Your task to perform on an android device: View the shopping cart on newegg. Image 0: 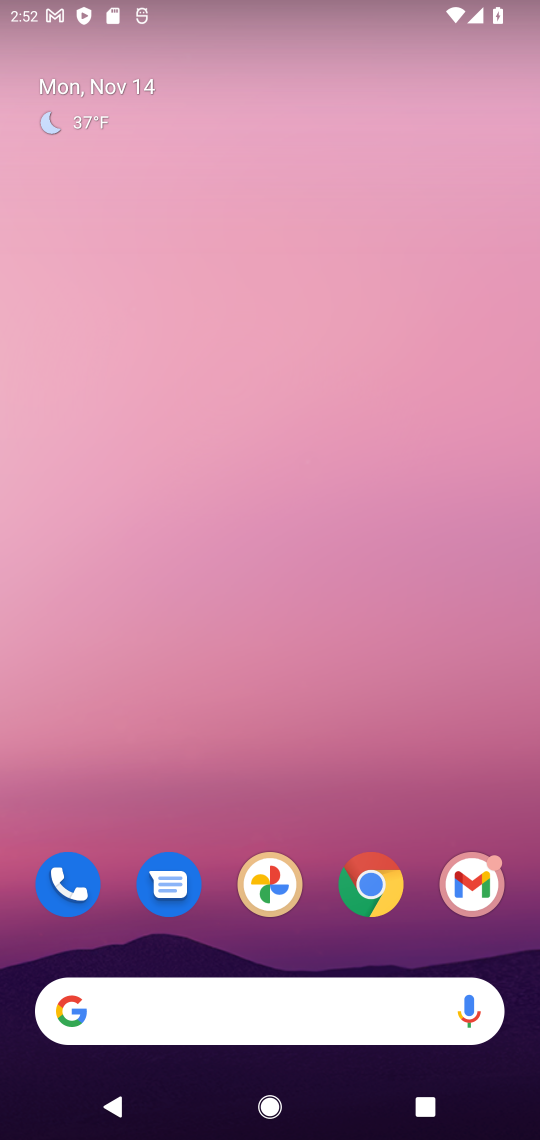
Step 0: click (380, 882)
Your task to perform on an android device: View the shopping cart on newegg. Image 1: 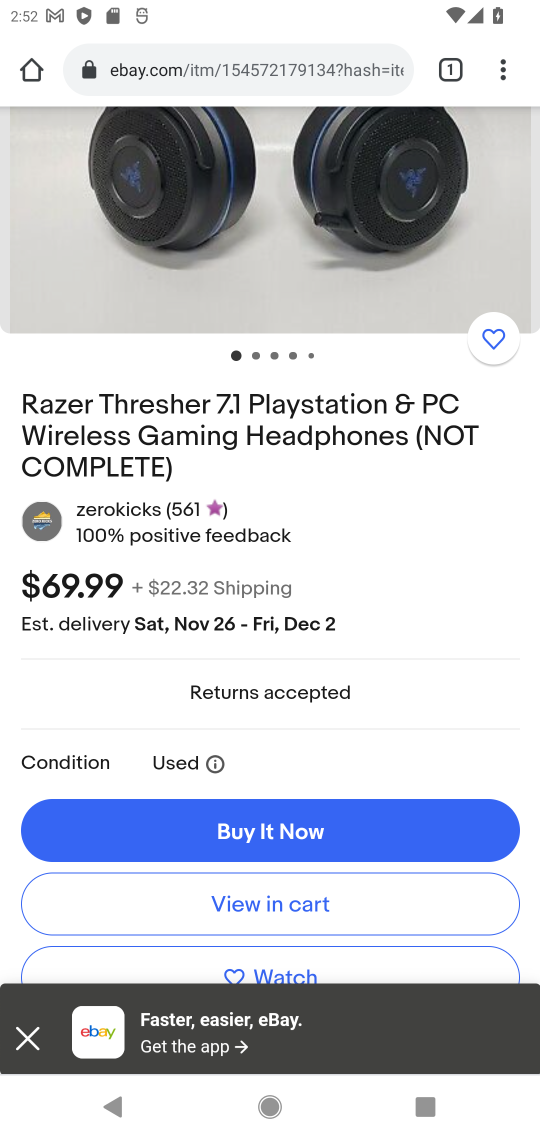
Step 1: click (244, 80)
Your task to perform on an android device: View the shopping cart on newegg. Image 2: 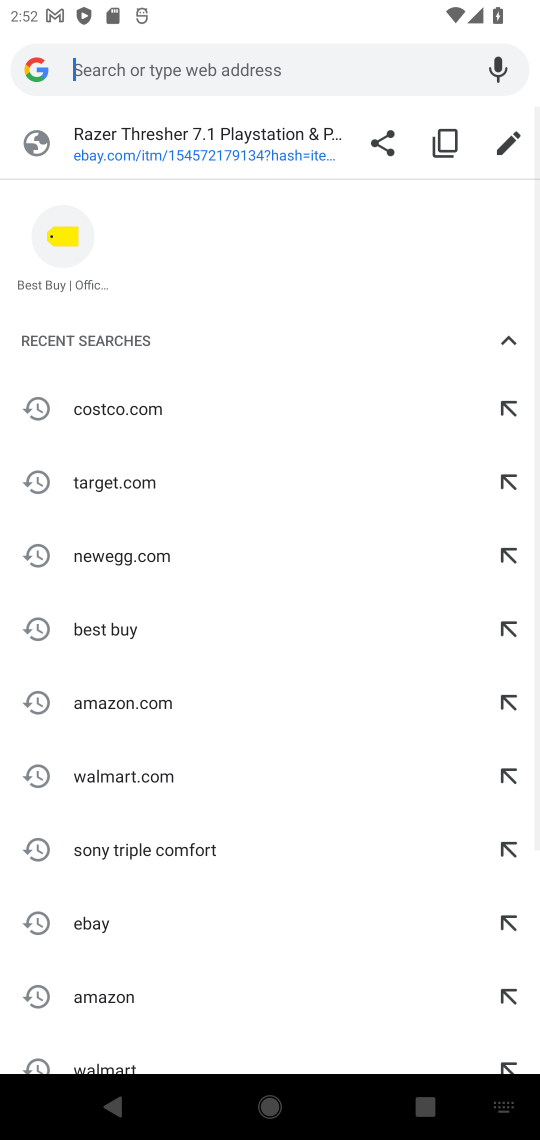
Step 2: click (106, 558)
Your task to perform on an android device: View the shopping cart on newegg. Image 3: 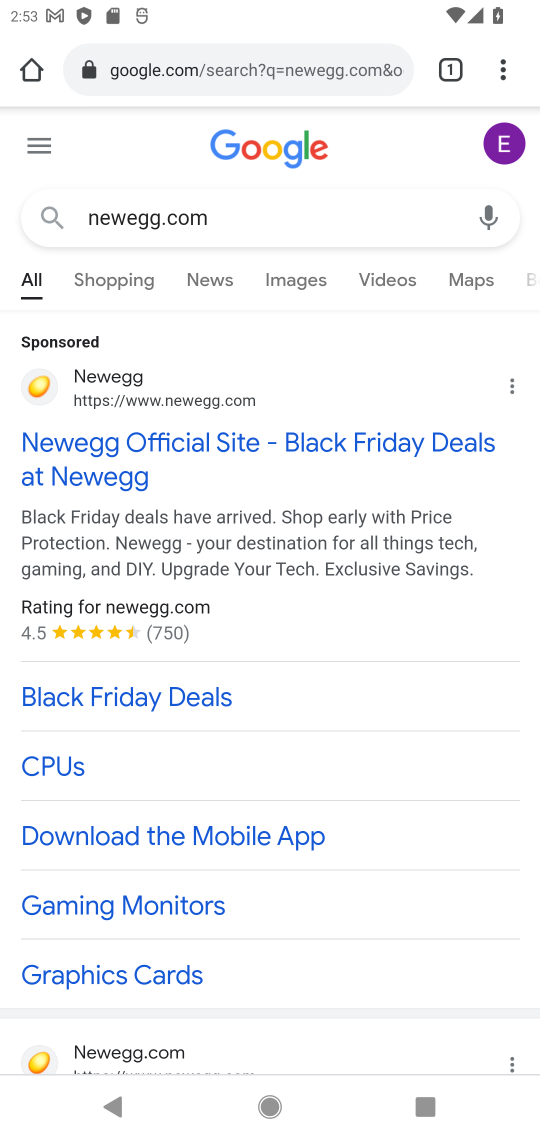
Step 3: click (132, 397)
Your task to perform on an android device: View the shopping cart on newegg. Image 4: 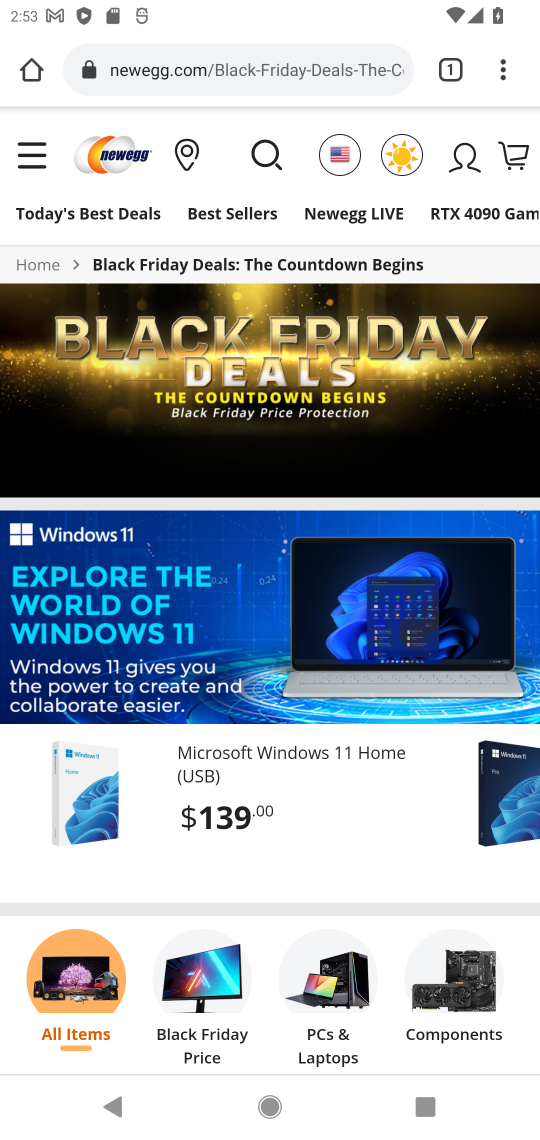
Step 4: click (508, 145)
Your task to perform on an android device: View the shopping cart on newegg. Image 5: 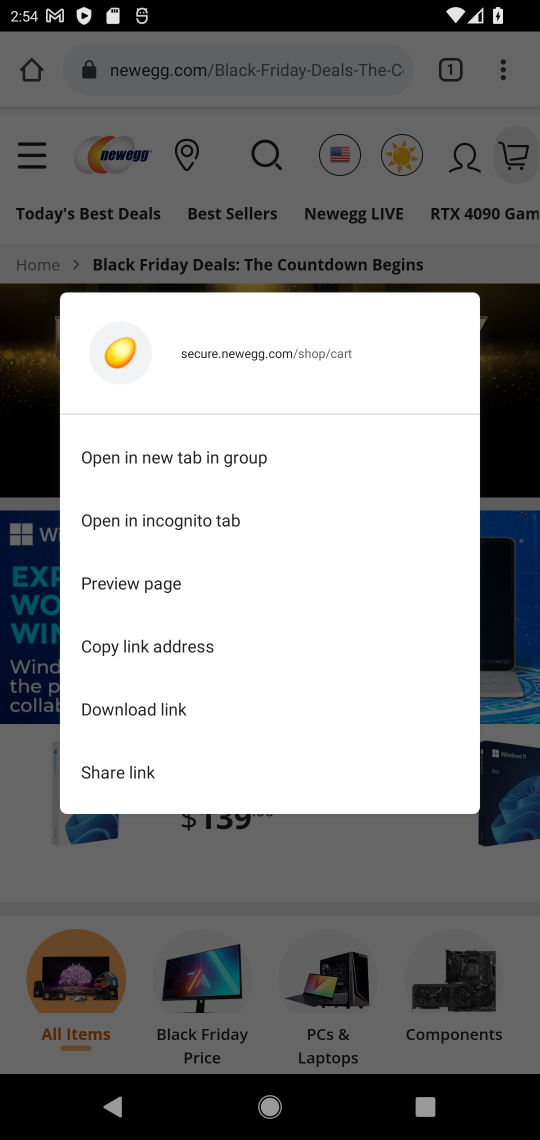
Step 5: click (469, 269)
Your task to perform on an android device: View the shopping cart on newegg. Image 6: 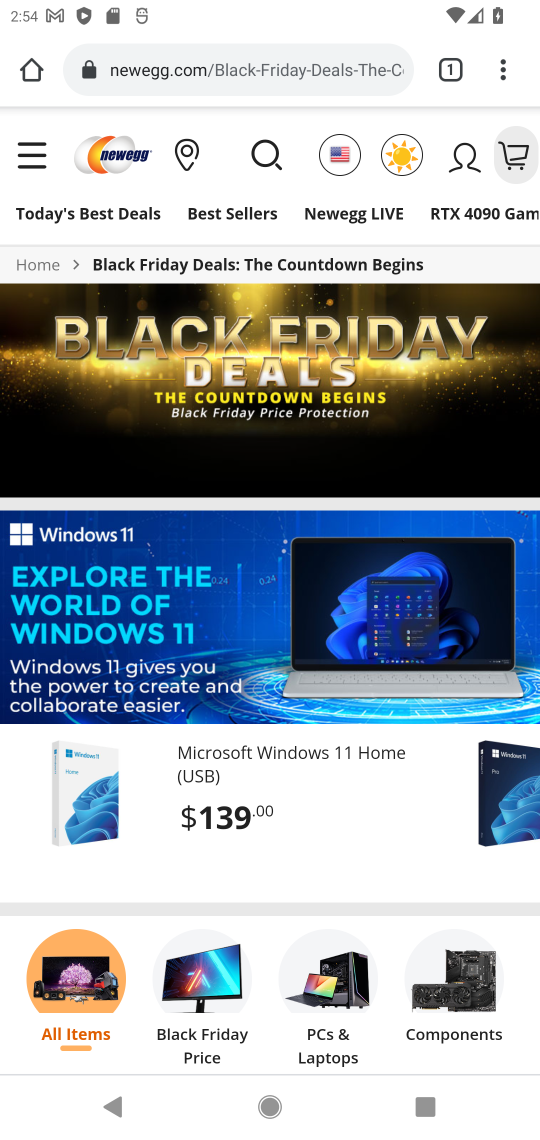
Step 6: task complete